Your task to perform on an android device: Open eBay Image 0: 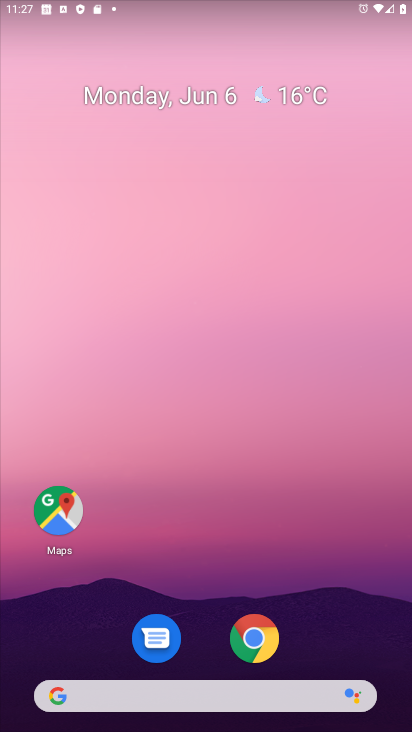
Step 0: drag from (230, 712) to (233, 197)
Your task to perform on an android device: Open eBay Image 1: 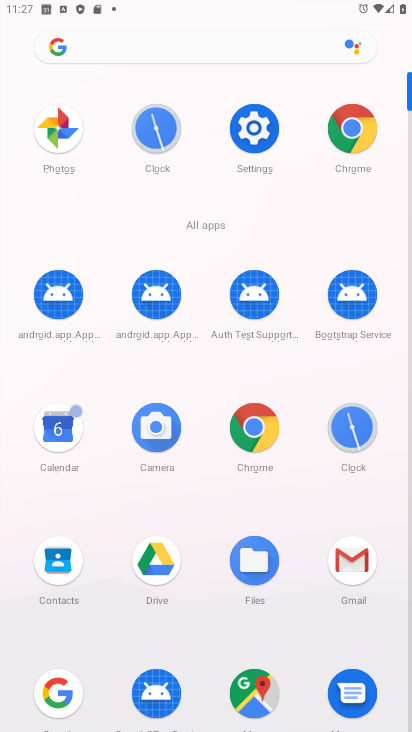
Step 1: click (357, 145)
Your task to perform on an android device: Open eBay Image 2: 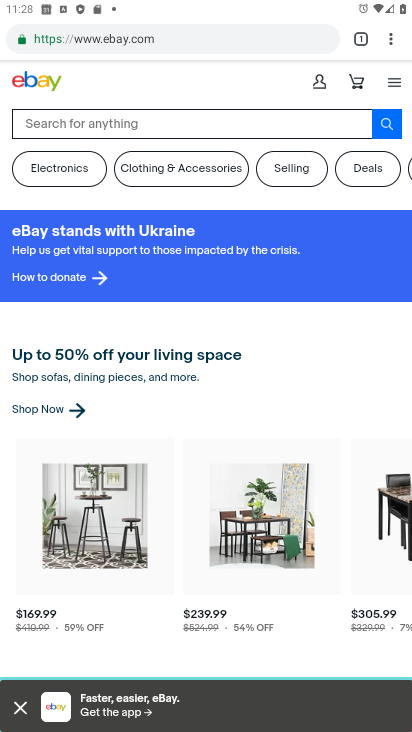
Step 2: task complete